Your task to perform on an android device: View the shopping cart on amazon.com. Add panasonic triple a to the cart on amazon.com, then select checkout. Image 0: 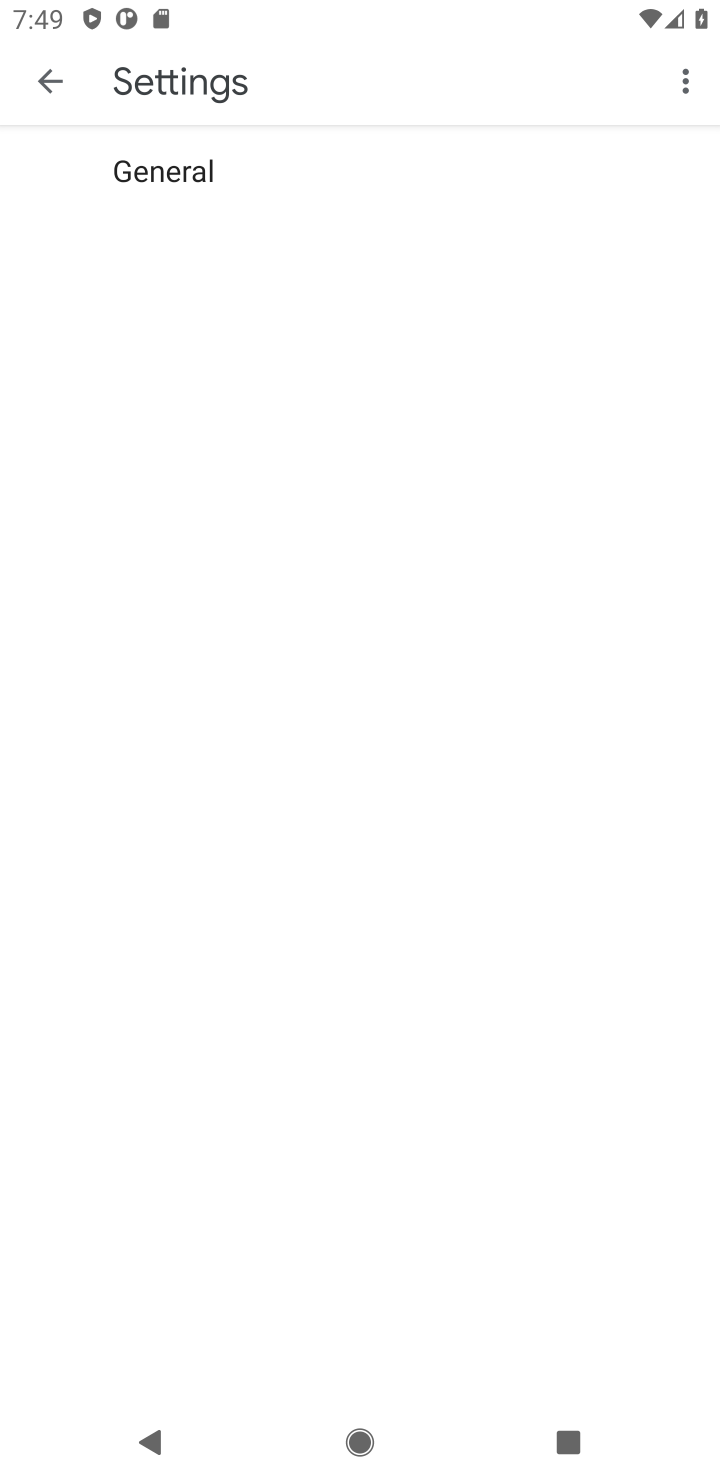
Step 0: press home button
Your task to perform on an android device: View the shopping cart on amazon.com. Add panasonic triple a to the cart on amazon.com, then select checkout. Image 1: 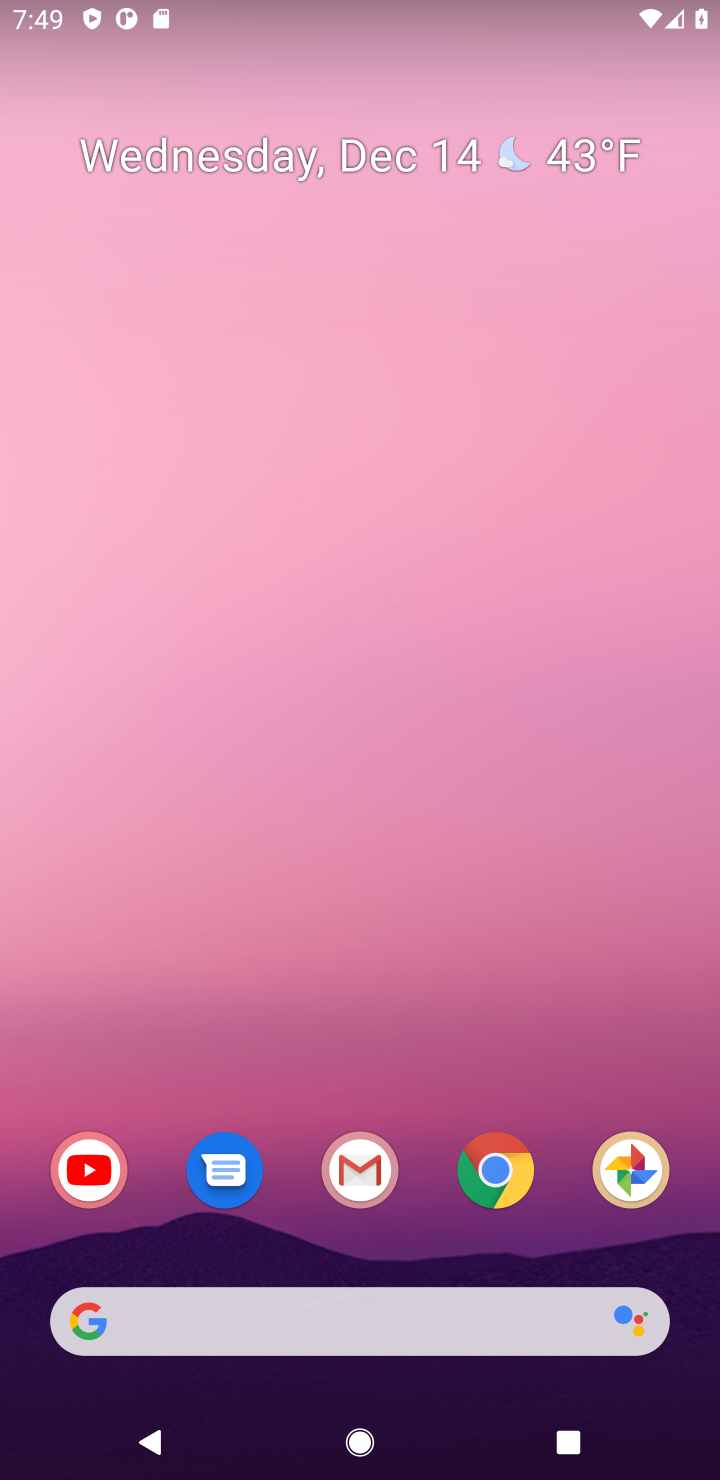
Step 1: click (472, 1175)
Your task to perform on an android device: View the shopping cart on amazon.com. Add panasonic triple a to the cart on amazon.com, then select checkout. Image 2: 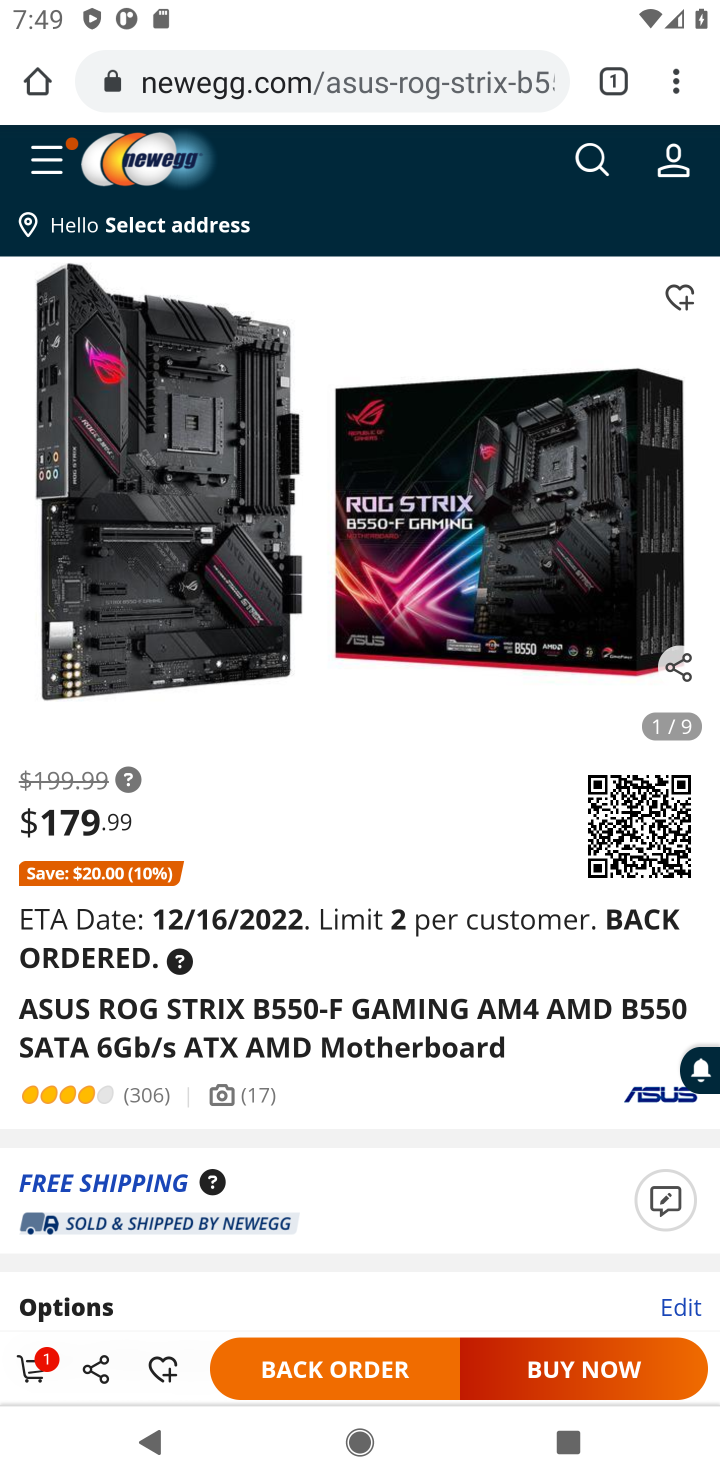
Step 2: click (284, 68)
Your task to perform on an android device: View the shopping cart on amazon.com. Add panasonic triple a to the cart on amazon.com, then select checkout. Image 3: 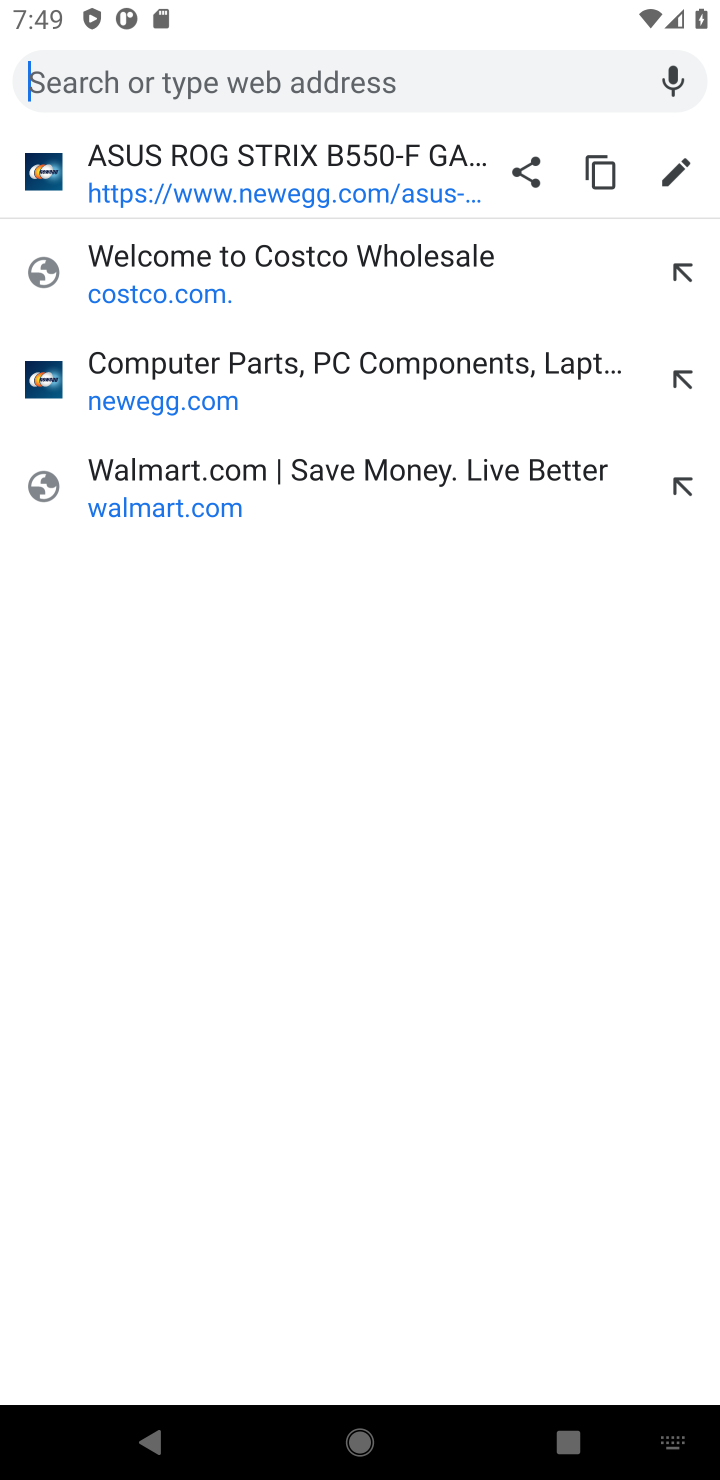
Step 3: type "amazon"
Your task to perform on an android device: View the shopping cart on amazon.com. Add panasonic triple a to the cart on amazon.com, then select checkout. Image 4: 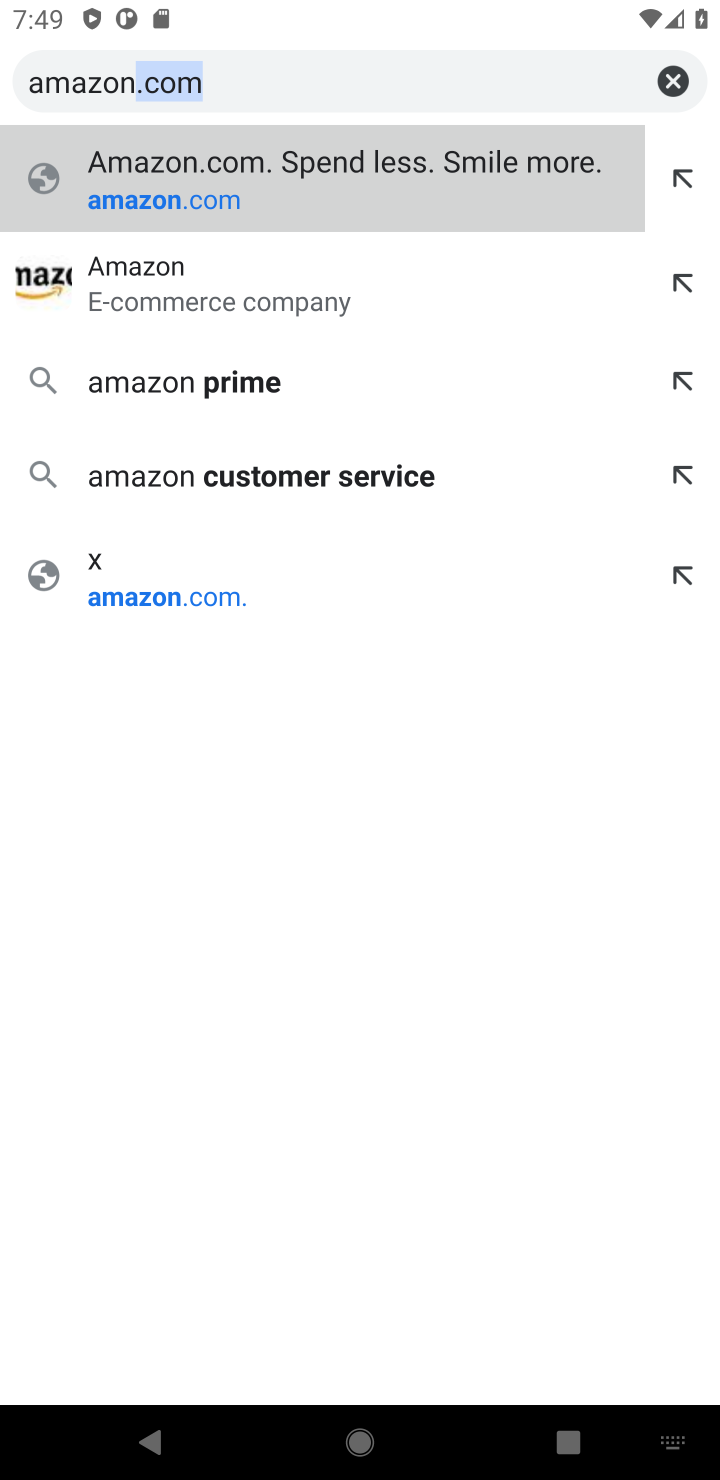
Step 4: click (440, 202)
Your task to perform on an android device: View the shopping cart on amazon.com. Add panasonic triple a to the cart on amazon.com, then select checkout. Image 5: 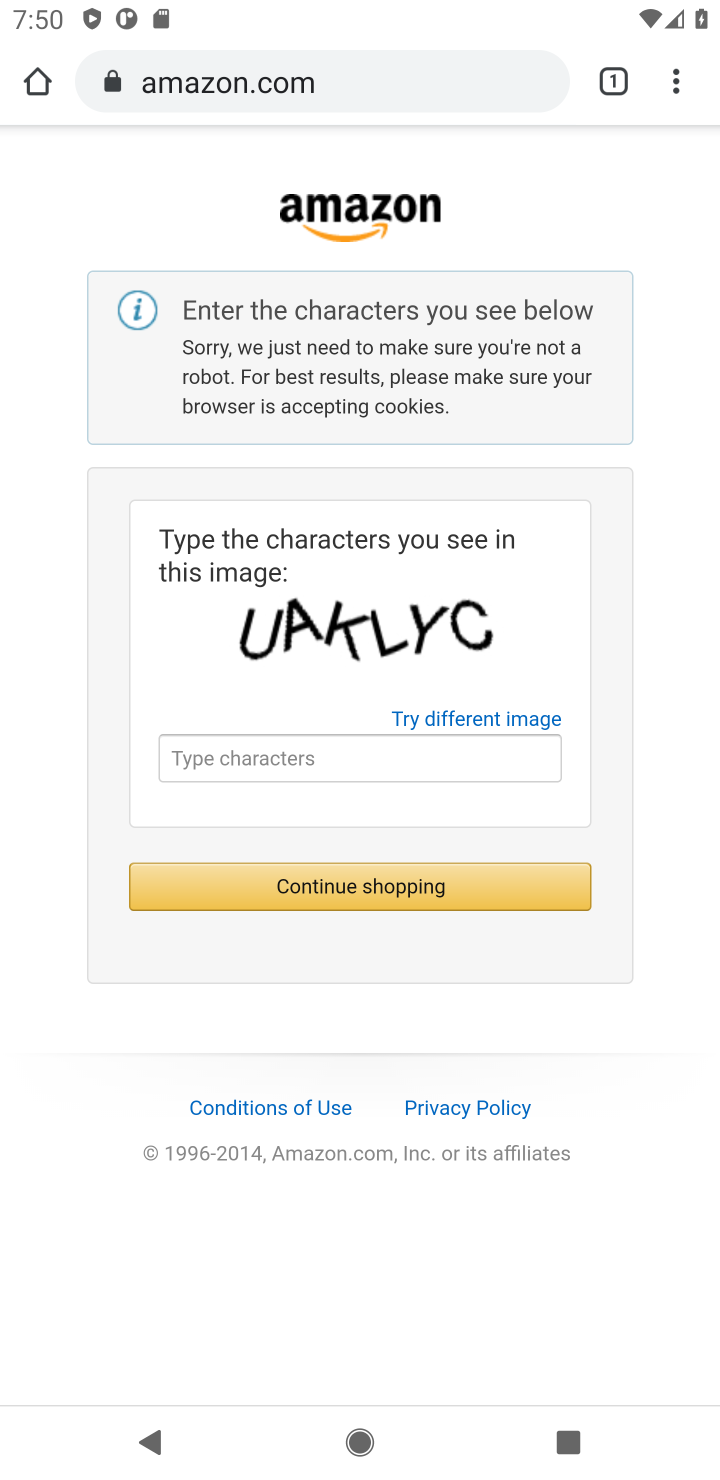
Step 5: click (405, 759)
Your task to perform on an android device: View the shopping cart on amazon.com. Add panasonic triple a to the cart on amazon.com, then select checkout. Image 6: 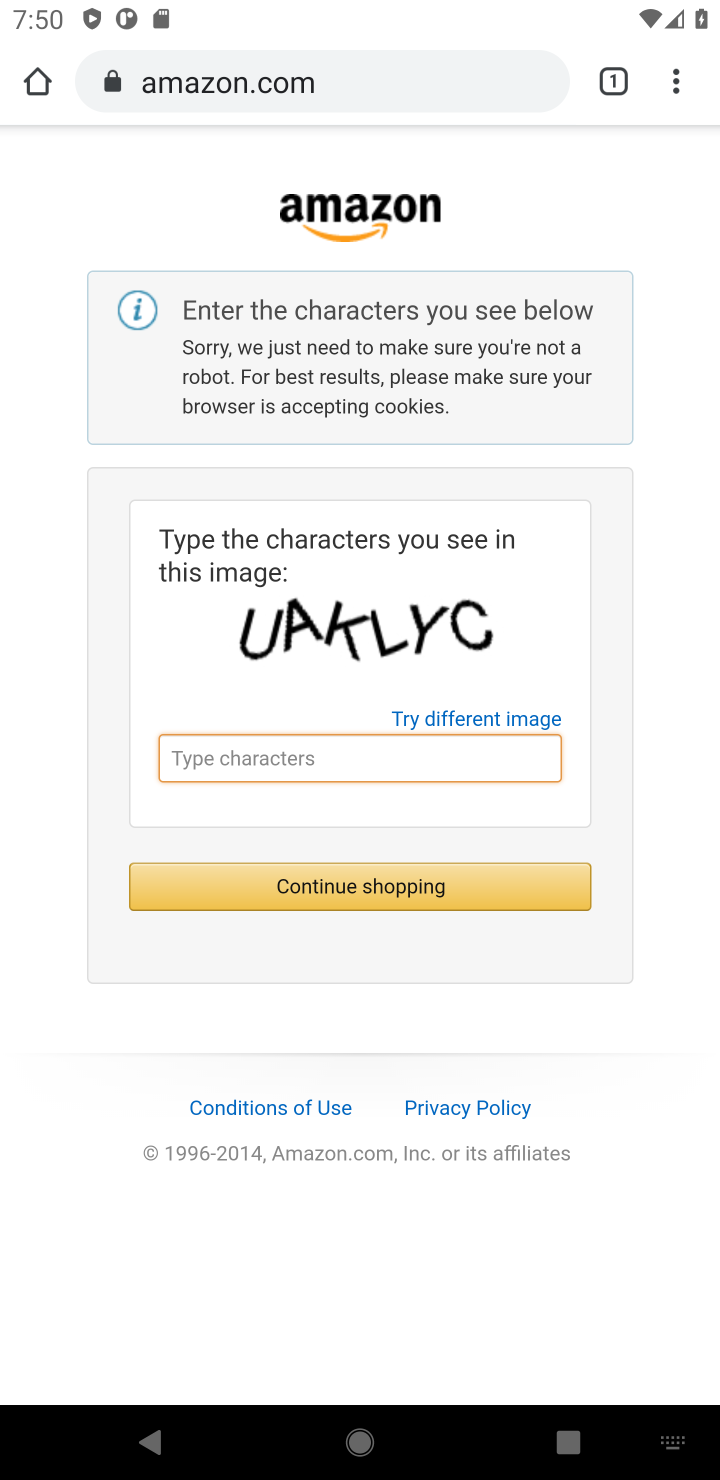
Step 6: type "UAKLYC"
Your task to perform on an android device: View the shopping cart on amazon.com. Add panasonic triple a to the cart on amazon.com, then select checkout. Image 7: 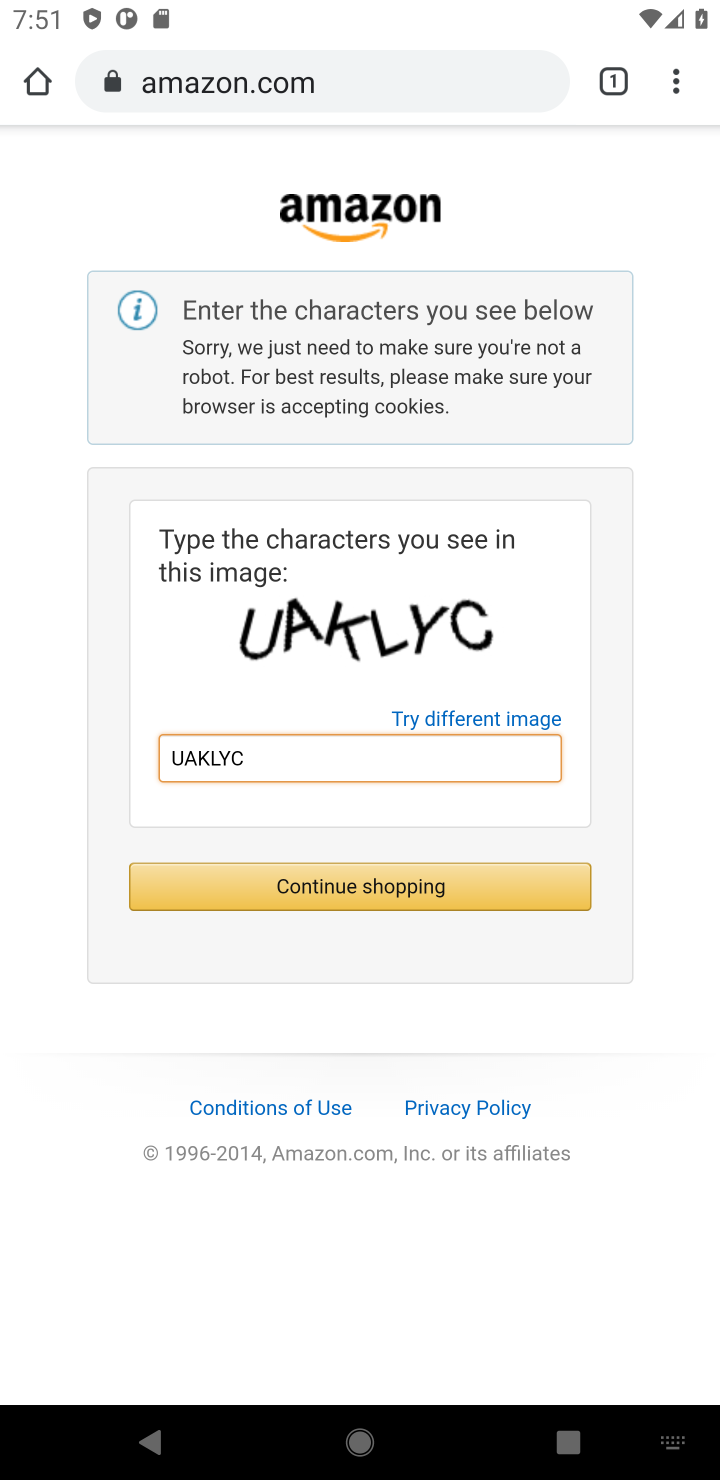
Step 7: click (504, 884)
Your task to perform on an android device: View the shopping cart on amazon.com. Add panasonic triple a to the cart on amazon.com, then select checkout. Image 8: 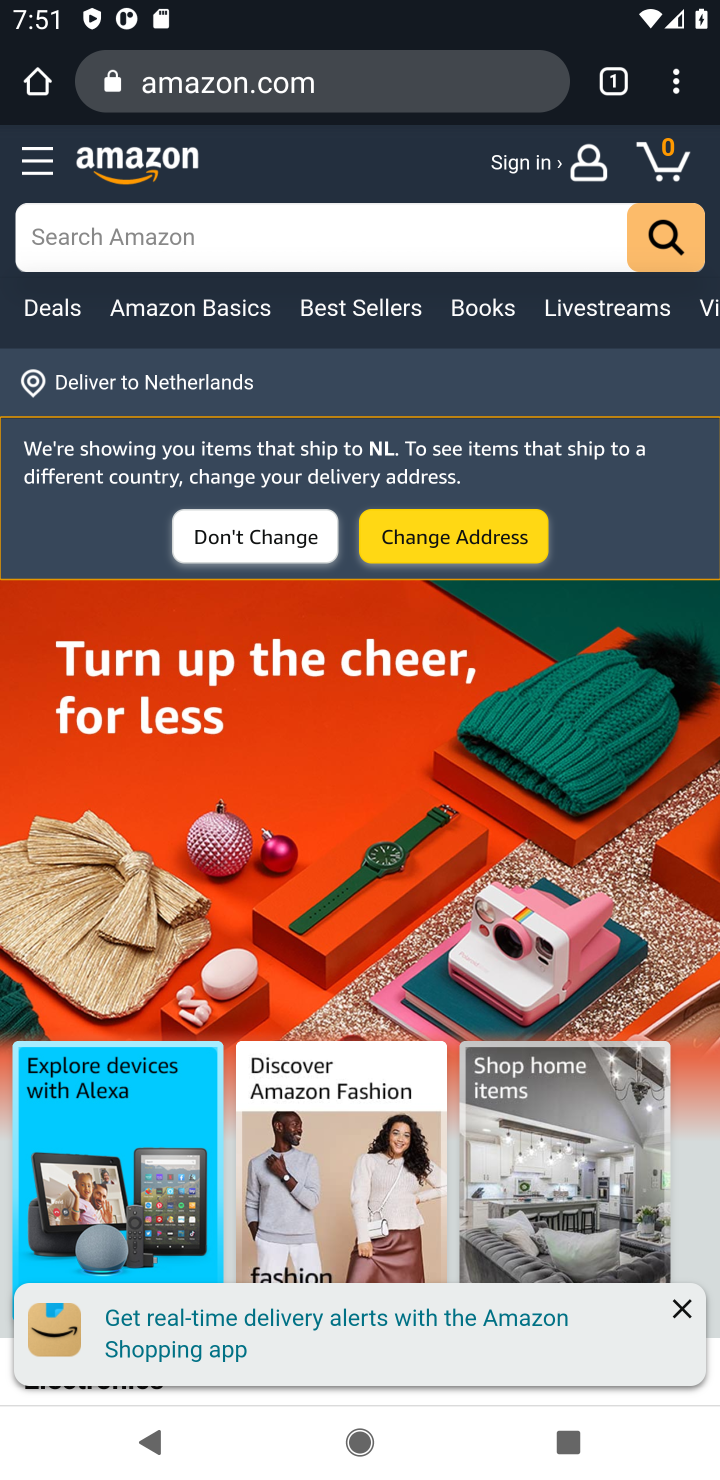
Step 8: type "PANASONIC TRIPLE A"
Your task to perform on an android device: View the shopping cart on amazon.com. Add panasonic triple a to the cart on amazon.com, then select checkout. Image 9: 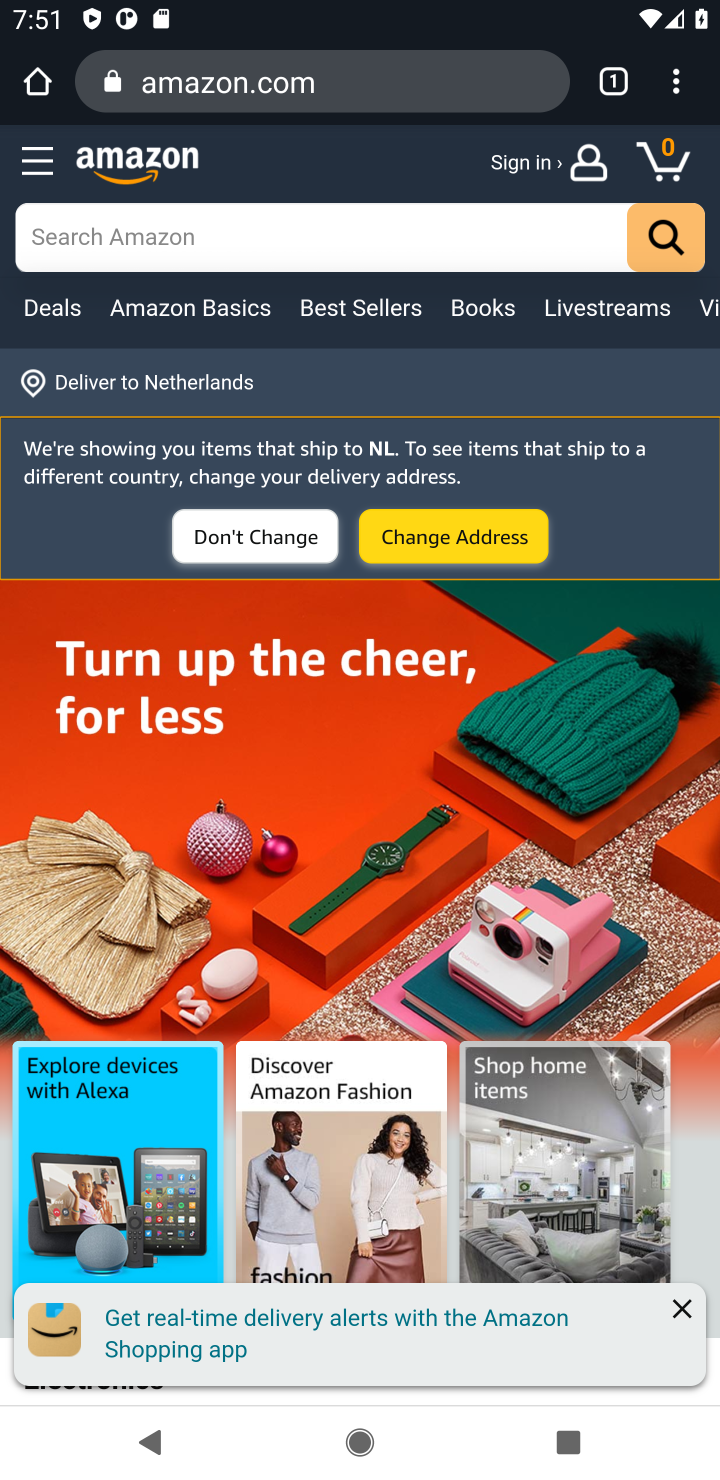
Step 9: click (370, 237)
Your task to perform on an android device: View the shopping cart on amazon.com. Add panasonic triple a to the cart on amazon.com, then select checkout. Image 10: 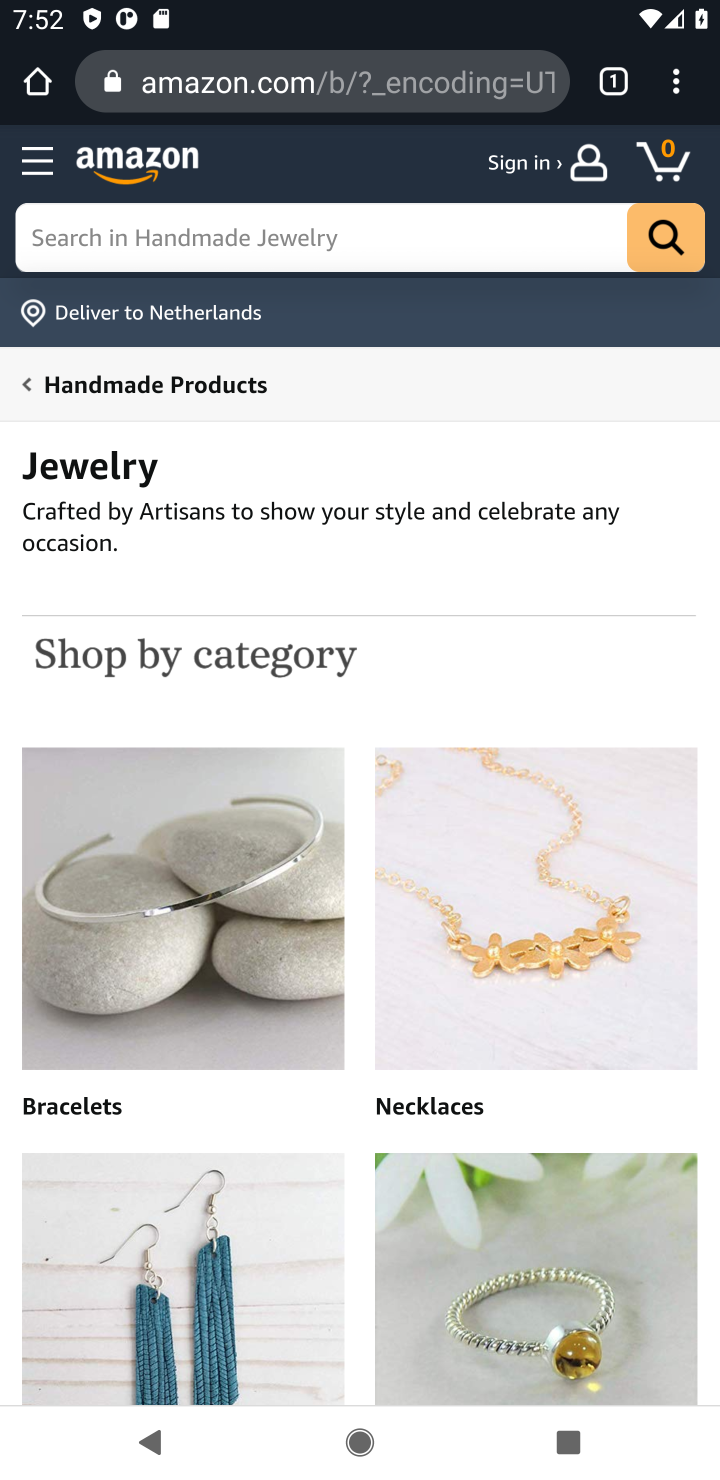
Step 10: click (306, 217)
Your task to perform on an android device: View the shopping cart on amazon.com. Add panasonic triple a to the cart on amazon.com, then select checkout. Image 11: 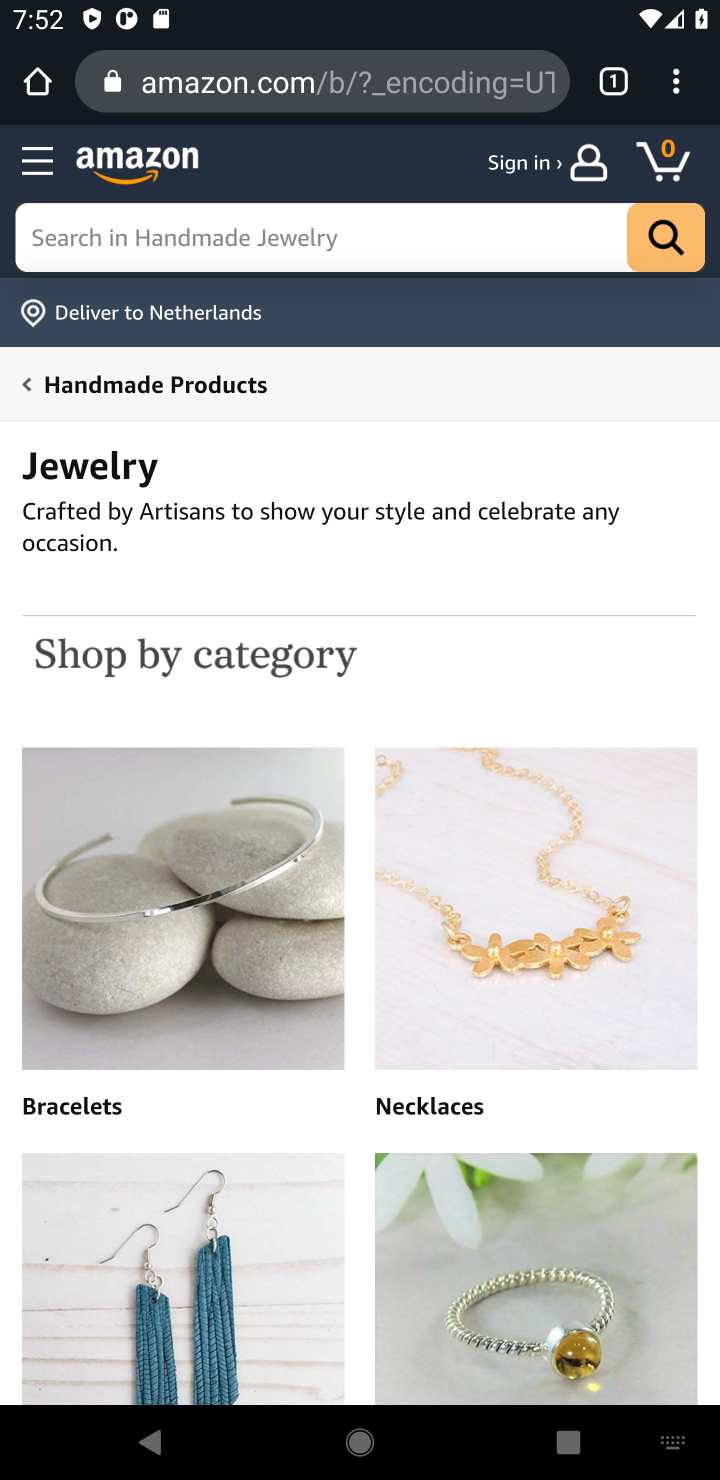
Step 11: type "PANASONIC TRIPLE A"
Your task to perform on an android device: View the shopping cart on amazon.com. Add panasonic triple a to the cart on amazon.com, then select checkout. Image 12: 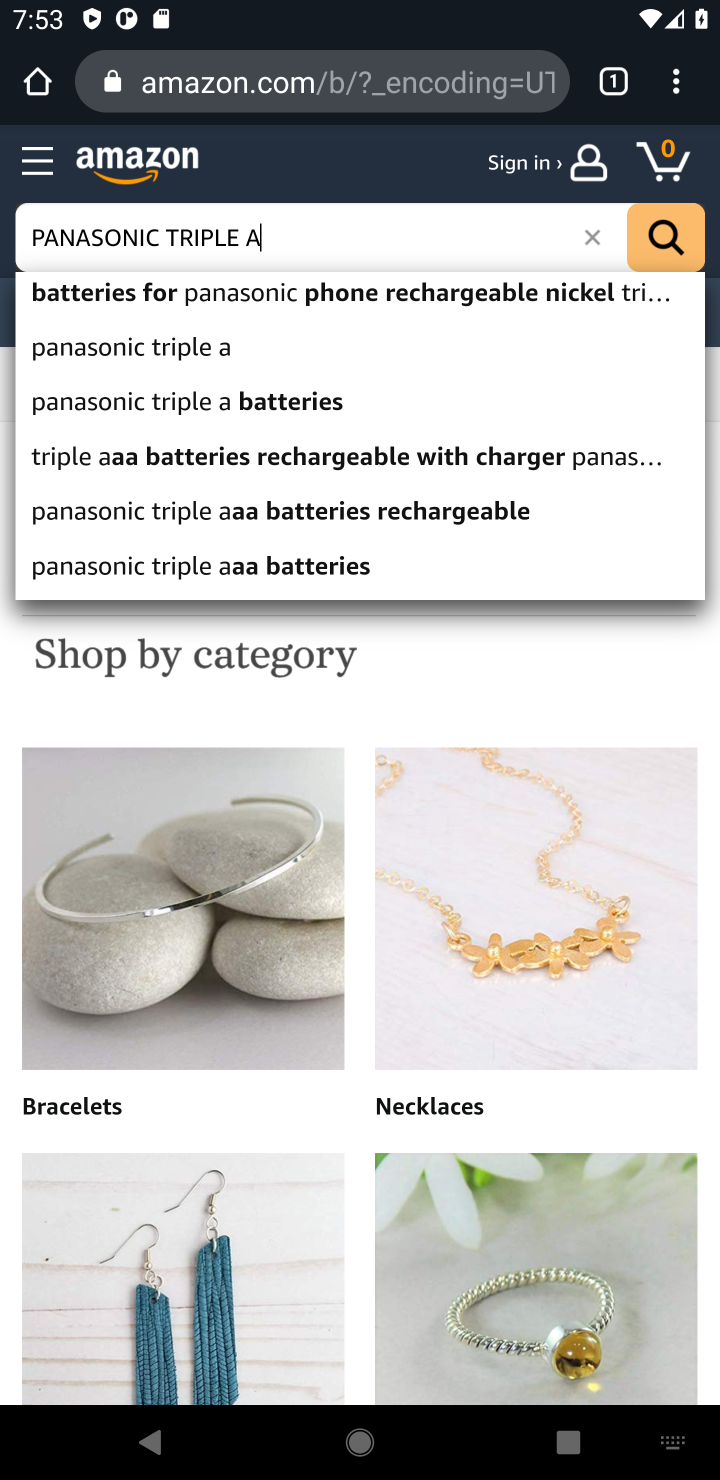
Step 12: click (234, 345)
Your task to perform on an android device: View the shopping cart on amazon.com. Add panasonic triple a to the cart on amazon.com, then select checkout. Image 13: 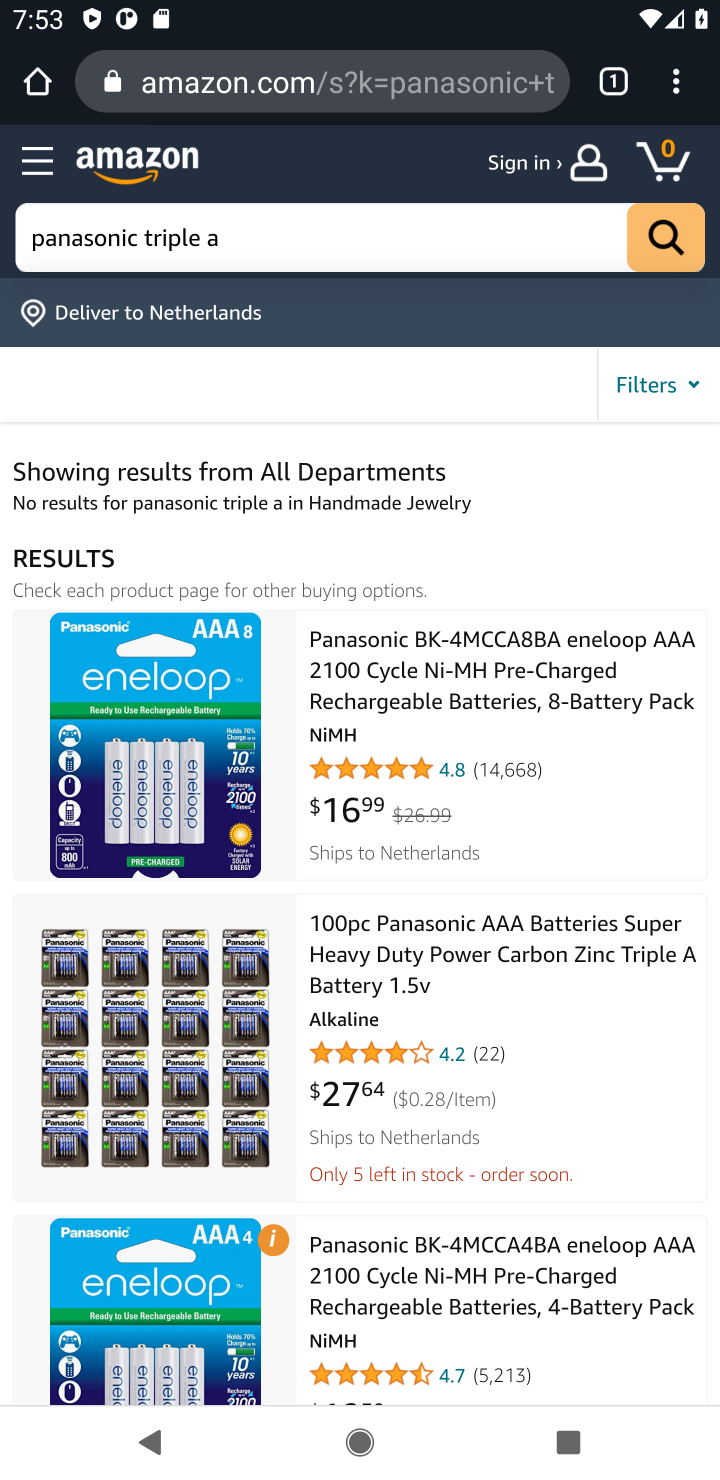
Step 13: click (578, 693)
Your task to perform on an android device: View the shopping cart on amazon.com. Add panasonic triple a to the cart on amazon.com, then select checkout. Image 14: 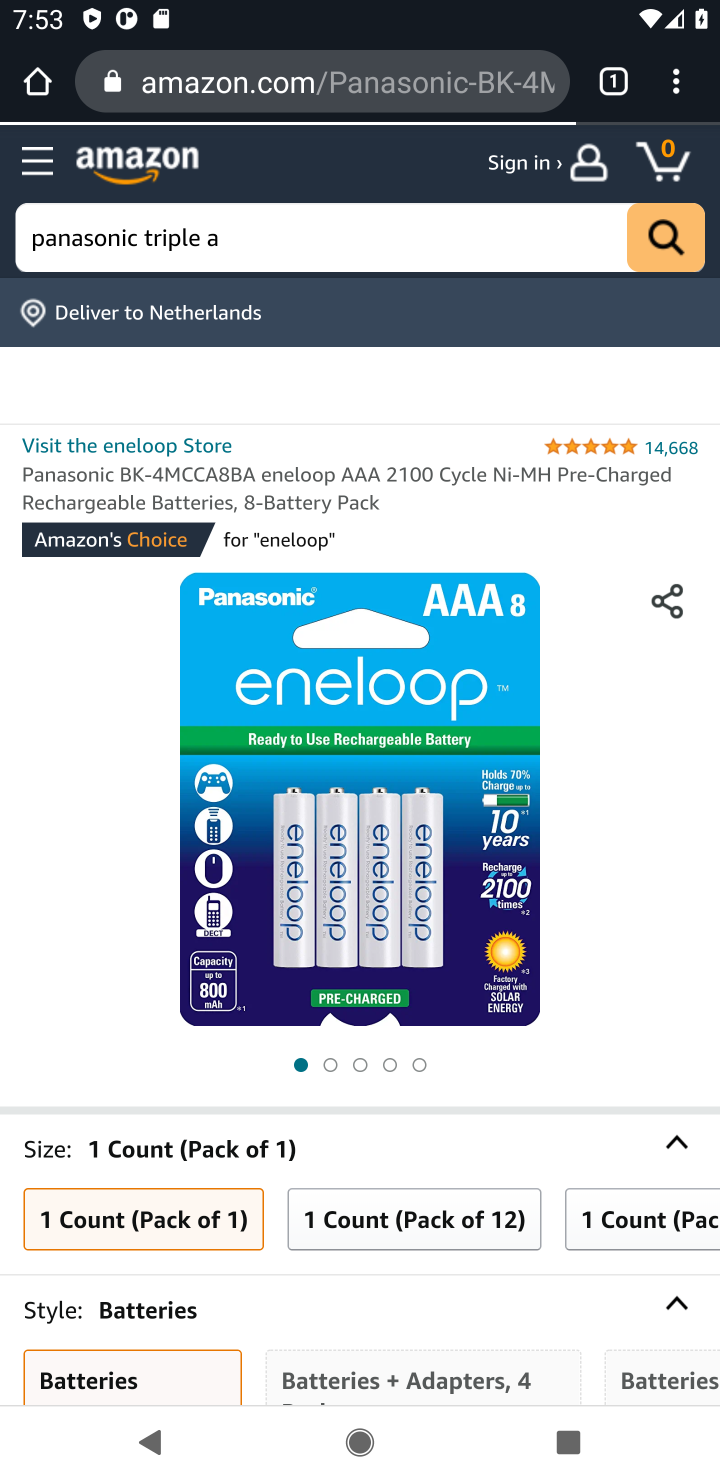
Step 14: drag from (431, 1315) to (429, 438)
Your task to perform on an android device: View the shopping cart on amazon.com. Add panasonic triple a to the cart on amazon.com, then select checkout. Image 15: 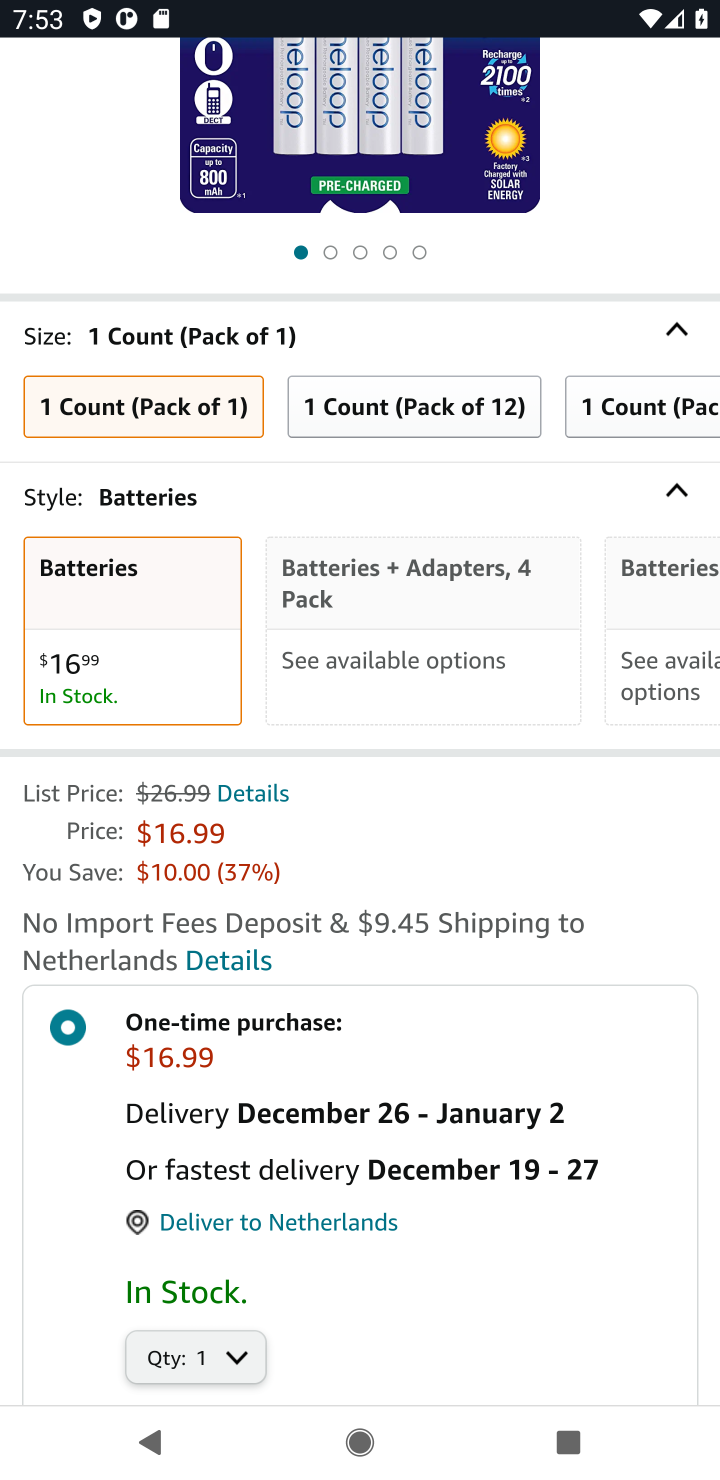
Step 15: drag from (478, 1308) to (415, 275)
Your task to perform on an android device: View the shopping cart on amazon.com. Add panasonic triple a to the cart on amazon.com, then select checkout. Image 16: 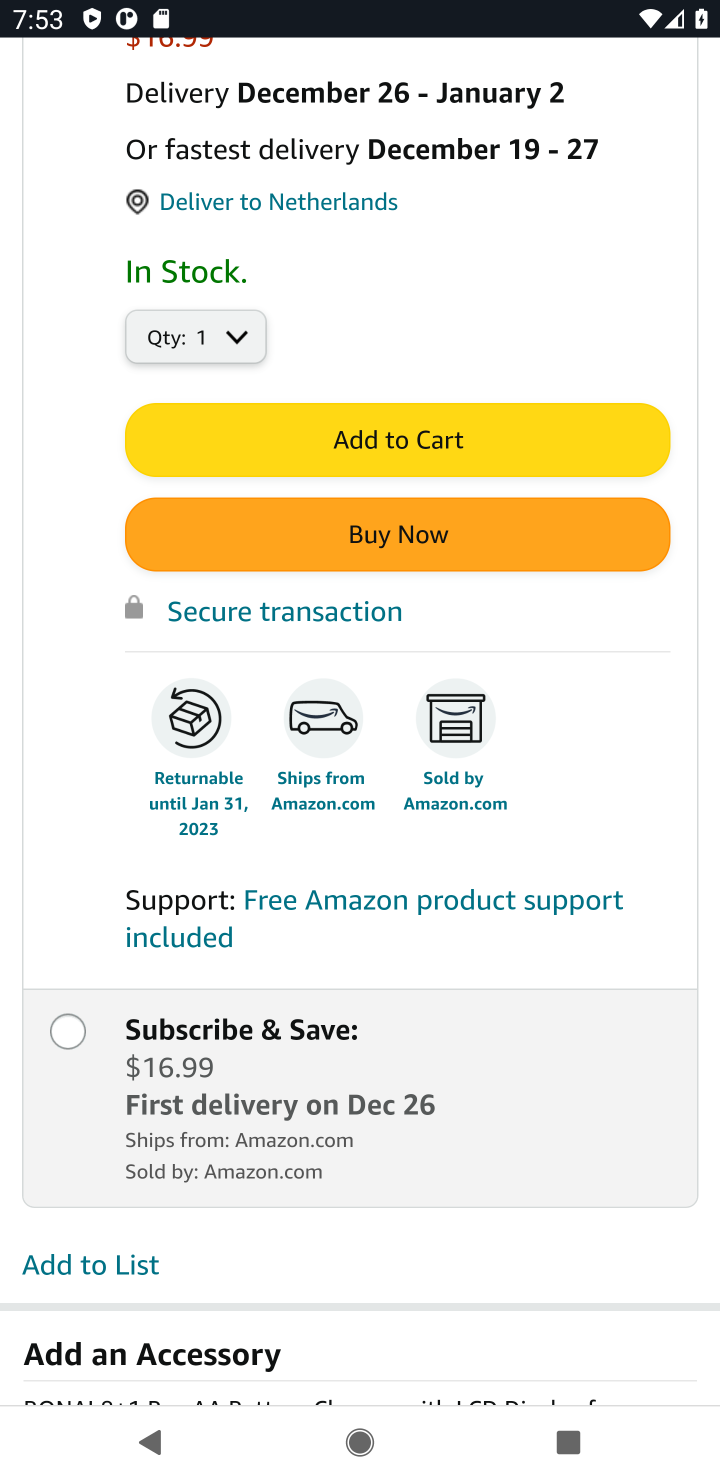
Step 16: click (373, 447)
Your task to perform on an android device: View the shopping cart on amazon.com. Add panasonic triple a to the cart on amazon.com, then select checkout. Image 17: 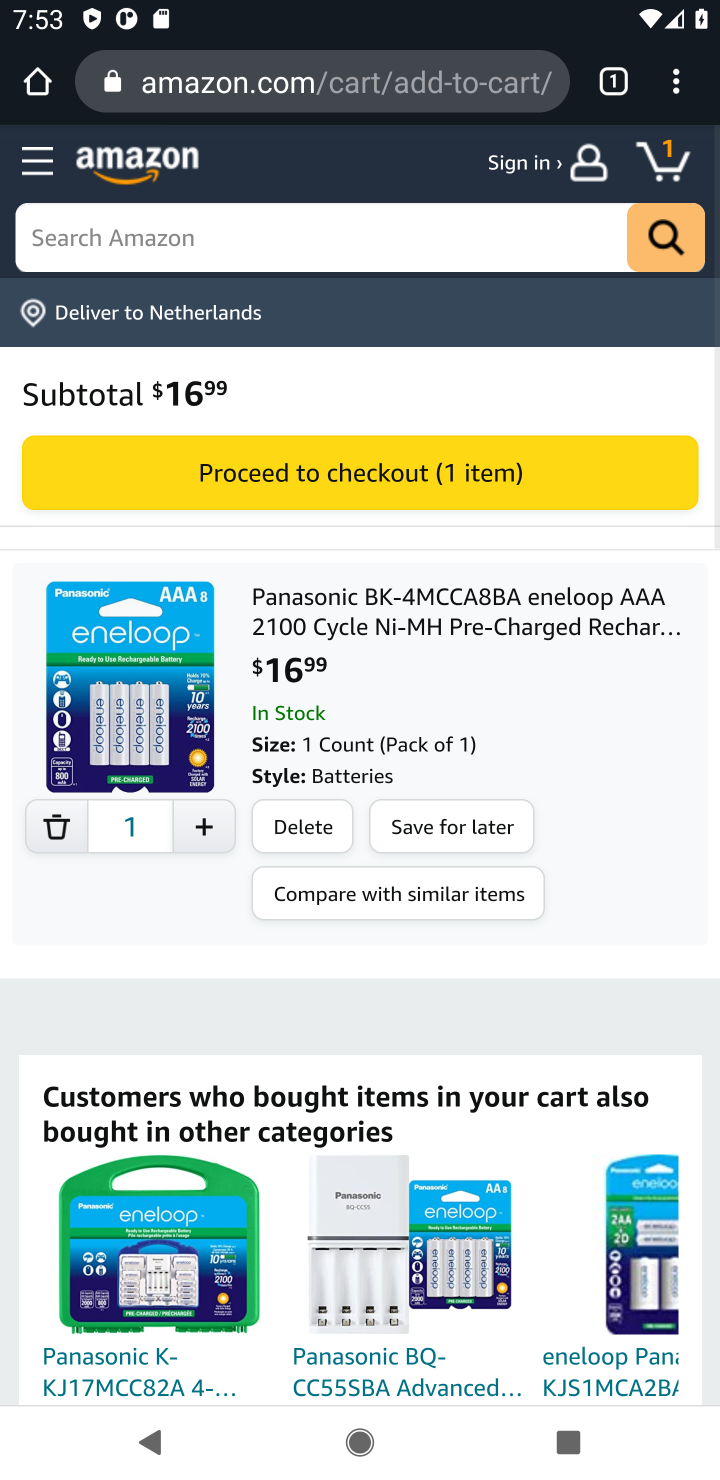
Step 17: click (664, 148)
Your task to perform on an android device: View the shopping cart on amazon.com. Add panasonic triple a to the cart on amazon.com, then select checkout. Image 18: 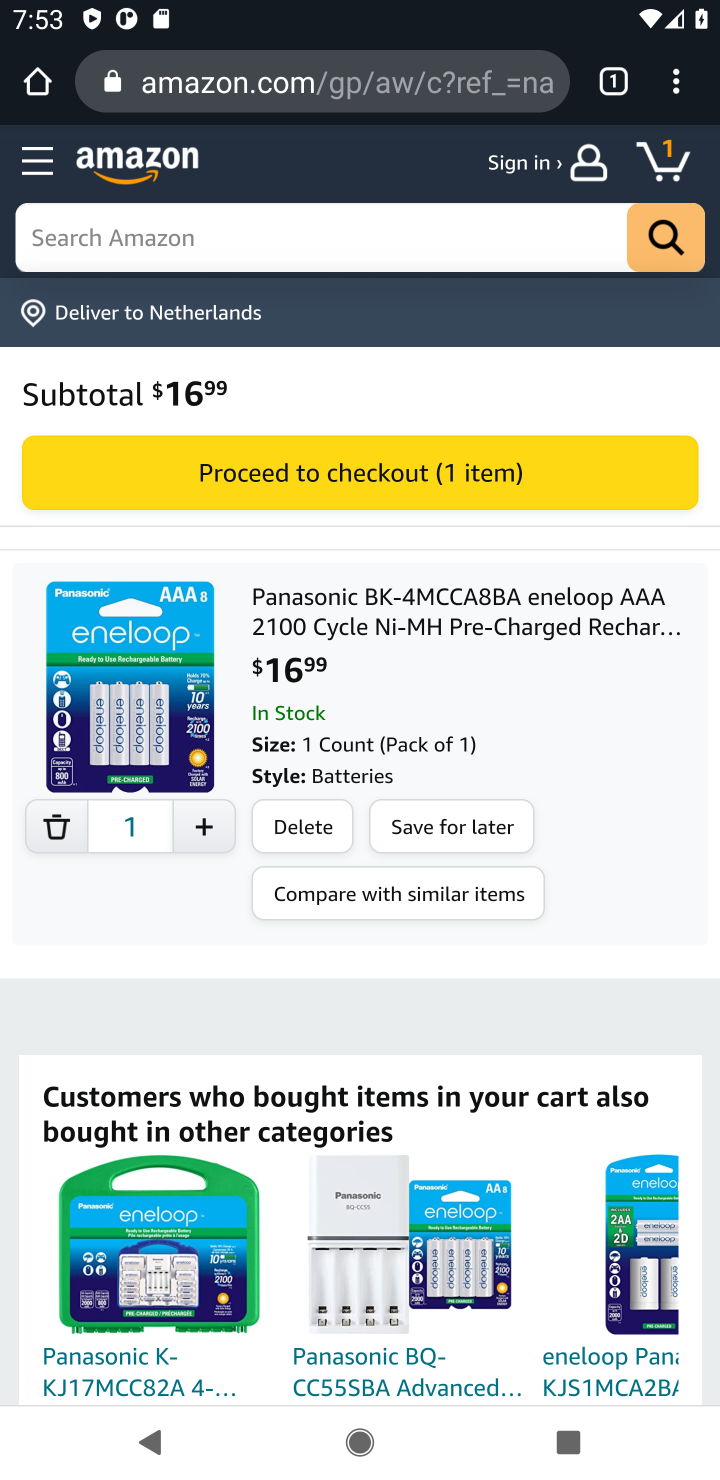
Step 18: click (381, 475)
Your task to perform on an android device: View the shopping cart on amazon.com. Add panasonic triple a to the cart on amazon.com, then select checkout. Image 19: 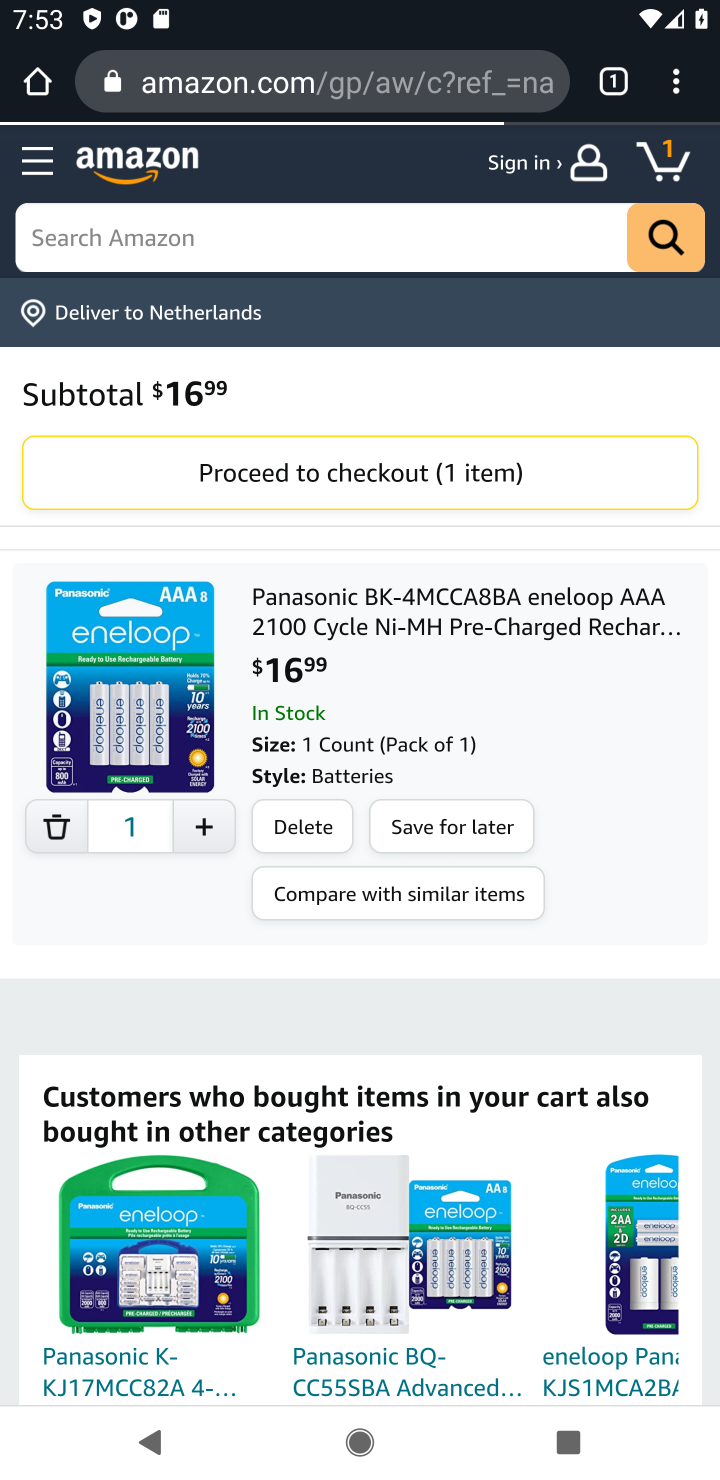
Step 19: task complete